Your task to perform on an android device: Open my contact list Image 0: 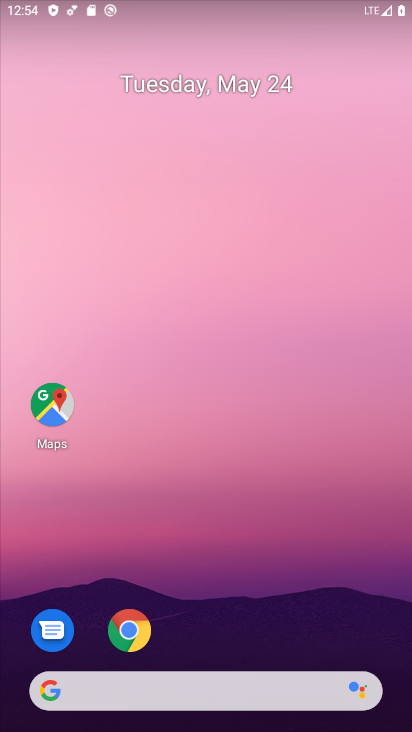
Step 0: drag from (294, 630) to (288, 162)
Your task to perform on an android device: Open my contact list Image 1: 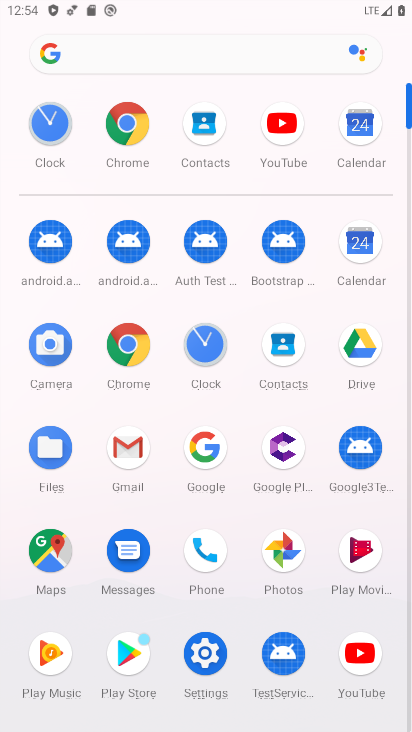
Step 1: click (207, 351)
Your task to perform on an android device: Open my contact list Image 2: 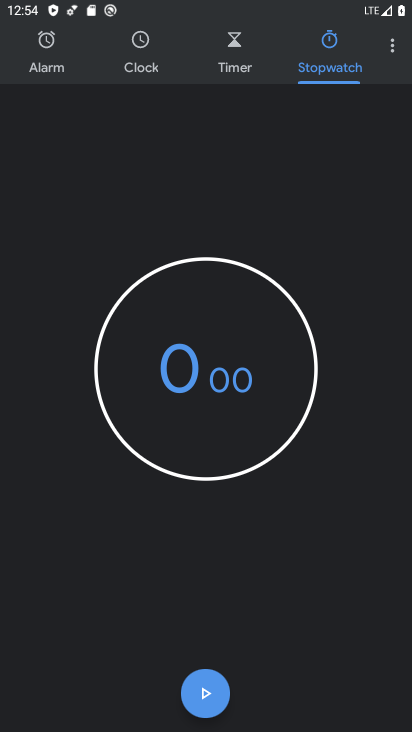
Step 2: press home button
Your task to perform on an android device: Open my contact list Image 3: 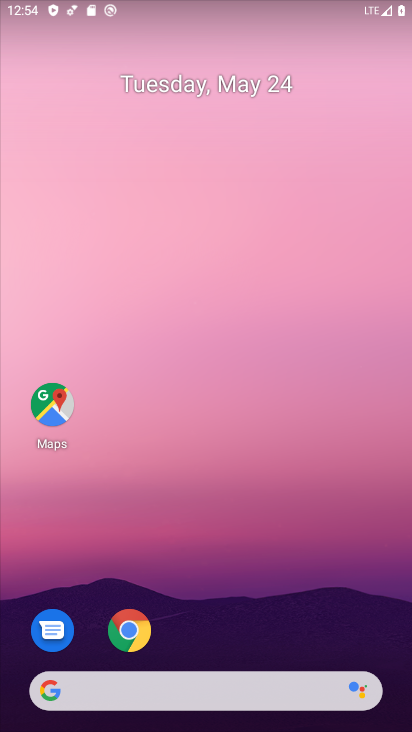
Step 3: drag from (248, 587) to (279, 248)
Your task to perform on an android device: Open my contact list Image 4: 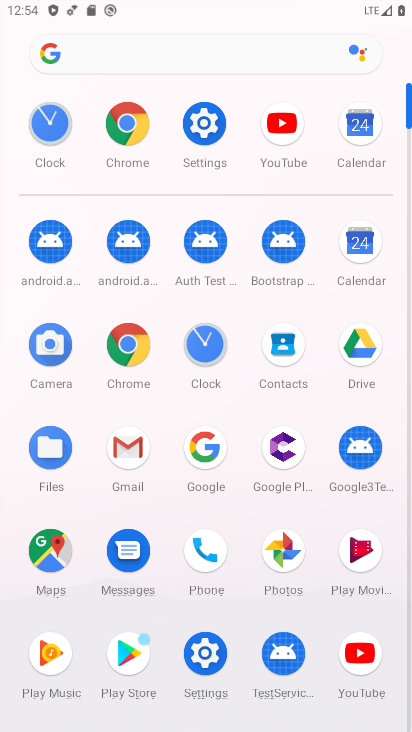
Step 4: click (284, 342)
Your task to perform on an android device: Open my contact list Image 5: 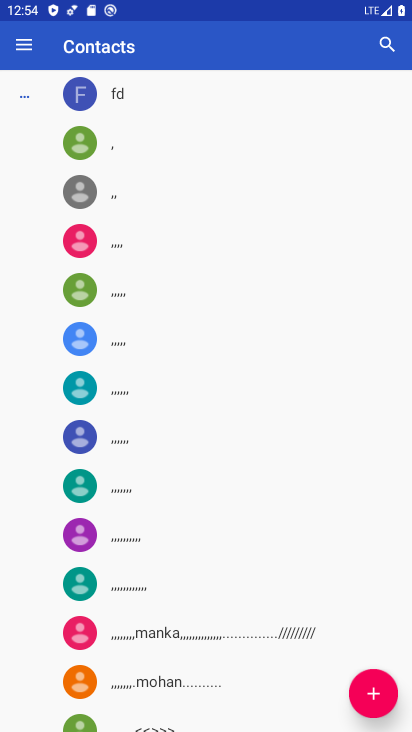
Step 5: task complete